Your task to perform on an android device: change notification settings in the gmail app Image 0: 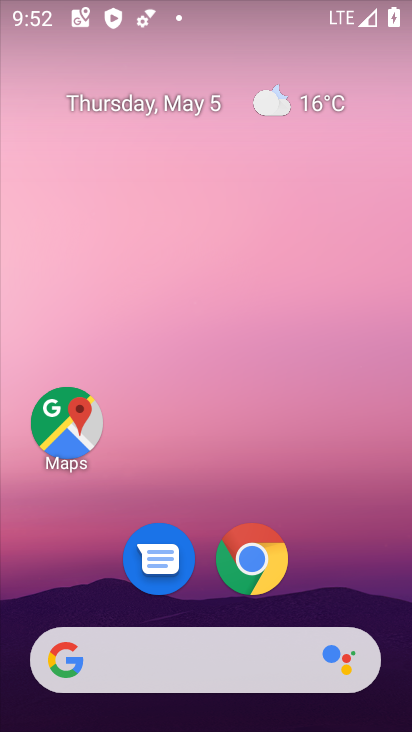
Step 0: drag from (201, 601) to (219, 115)
Your task to perform on an android device: change notification settings in the gmail app Image 1: 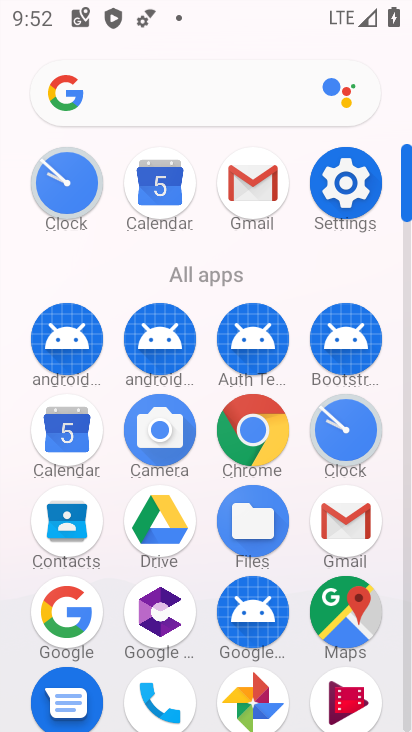
Step 1: click (351, 529)
Your task to perform on an android device: change notification settings in the gmail app Image 2: 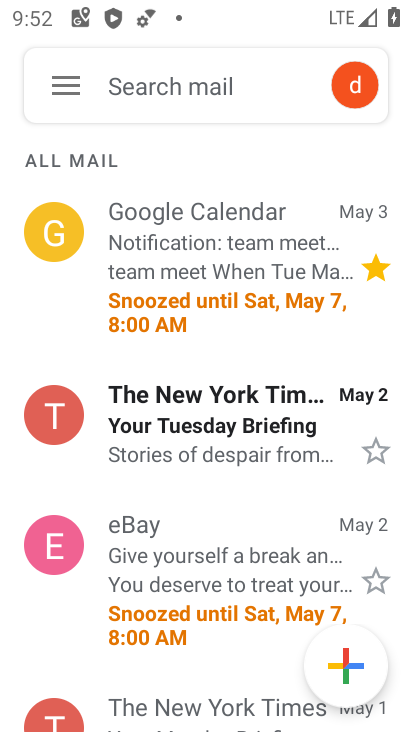
Step 2: click (53, 77)
Your task to perform on an android device: change notification settings in the gmail app Image 3: 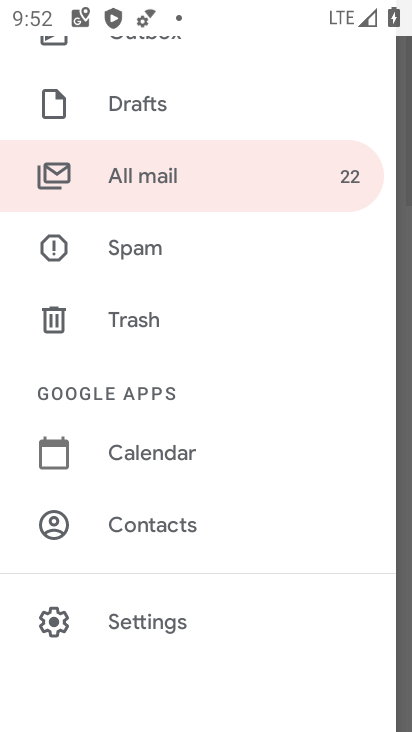
Step 3: click (150, 636)
Your task to perform on an android device: change notification settings in the gmail app Image 4: 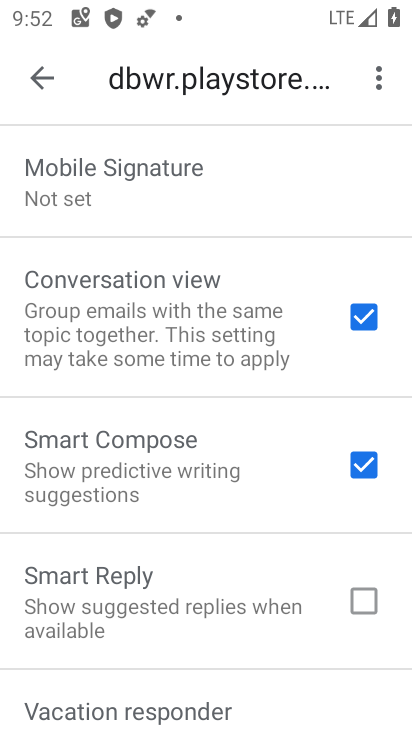
Step 4: click (50, 77)
Your task to perform on an android device: change notification settings in the gmail app Image 5: 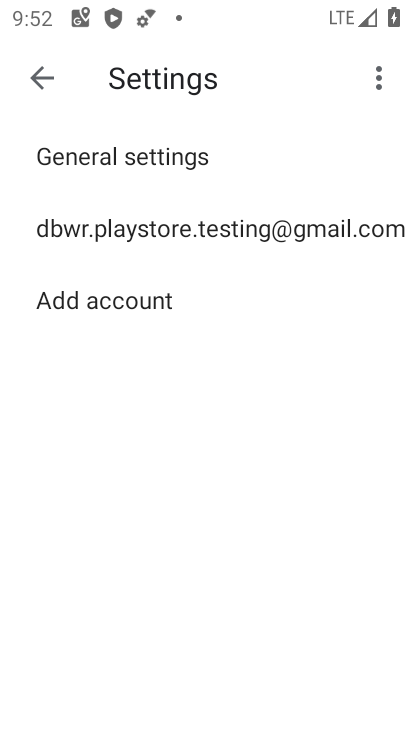
Step 5: click (142, 154)
Your task to perform on an android device: change notification settings in the gmail app Image 6: 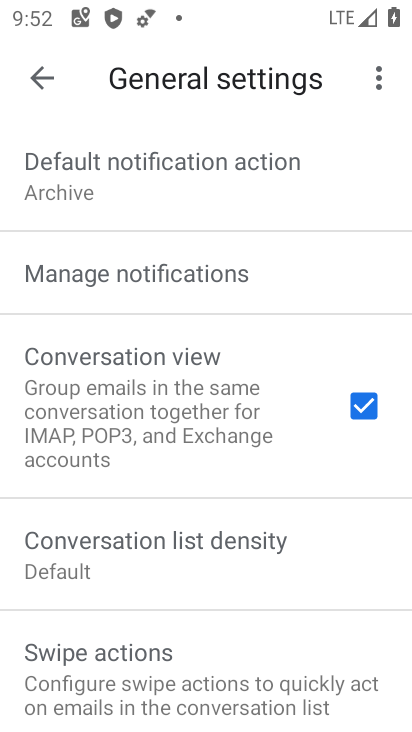
Step 6: click (189, 272)
Your task to perform on an android device: change notification settings in the gmail app Image 7: 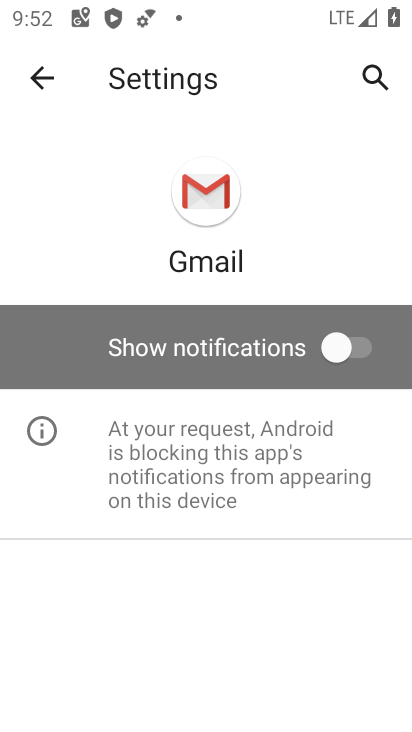
Step 7: click (371, 359)
Your task to perform on an android device: change notification settings in the gmail app Image 8: 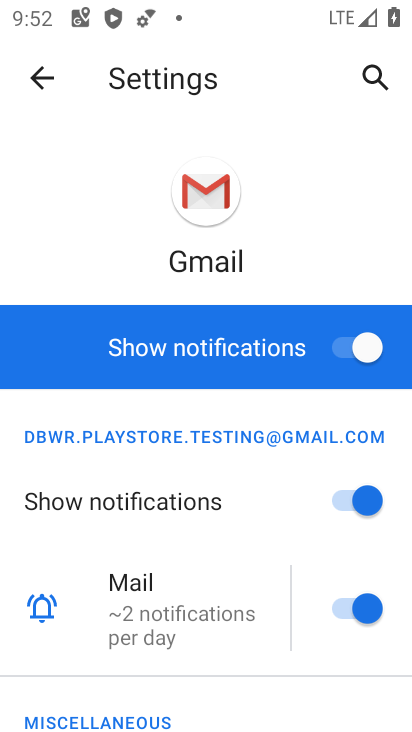
Step 8: task complete